Your task to perform on an android device: change the upload size in google photos Image 0: 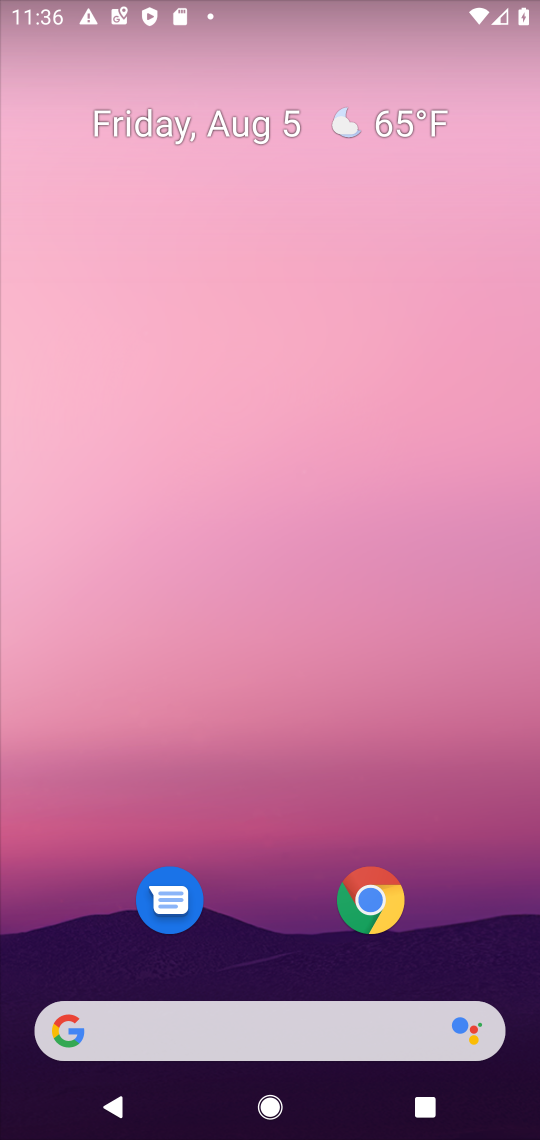
Step 0: drag from (244, 985) to (295, 169)
Your task to perform on an android device: change the upload size in google photos Image 1: 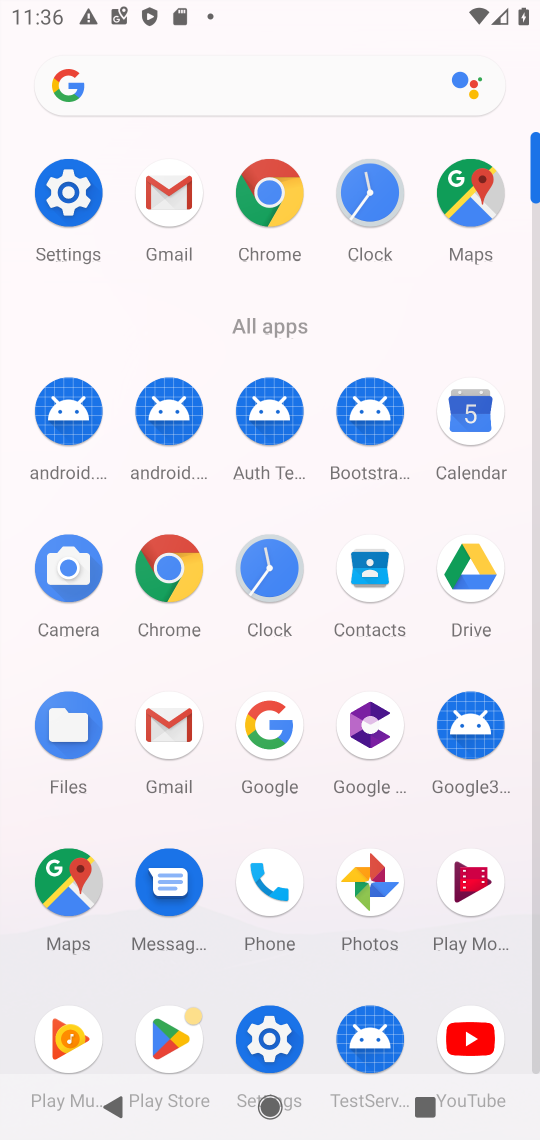
Step 1: click (371, 880)
Your task to perform on an android device: change the upload size in google photos Image 2: 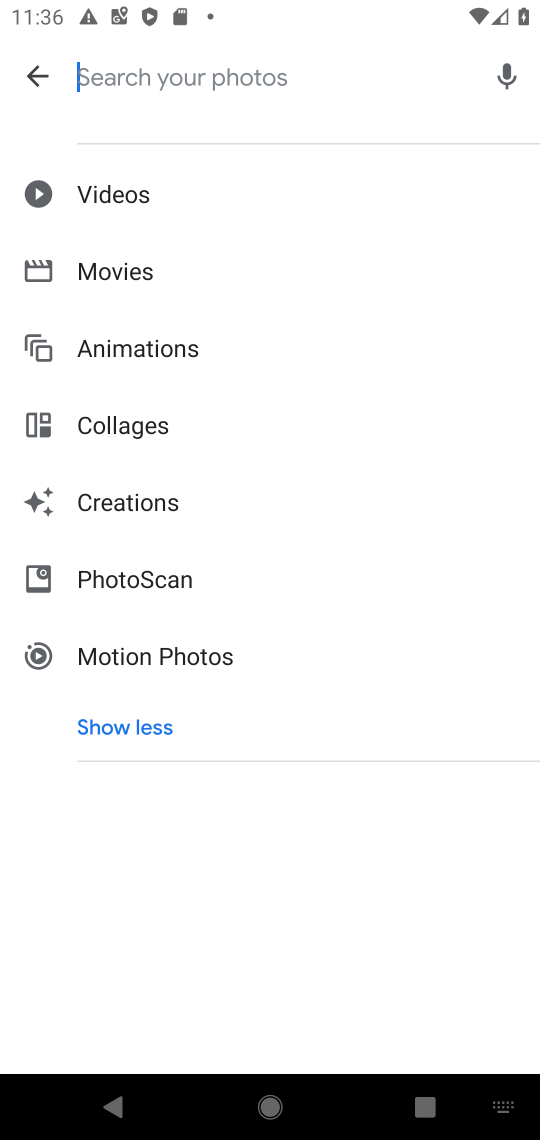
Step 2: click (34, 74)
Your task to perform on an android device: change the upload size in google photos Image 3: 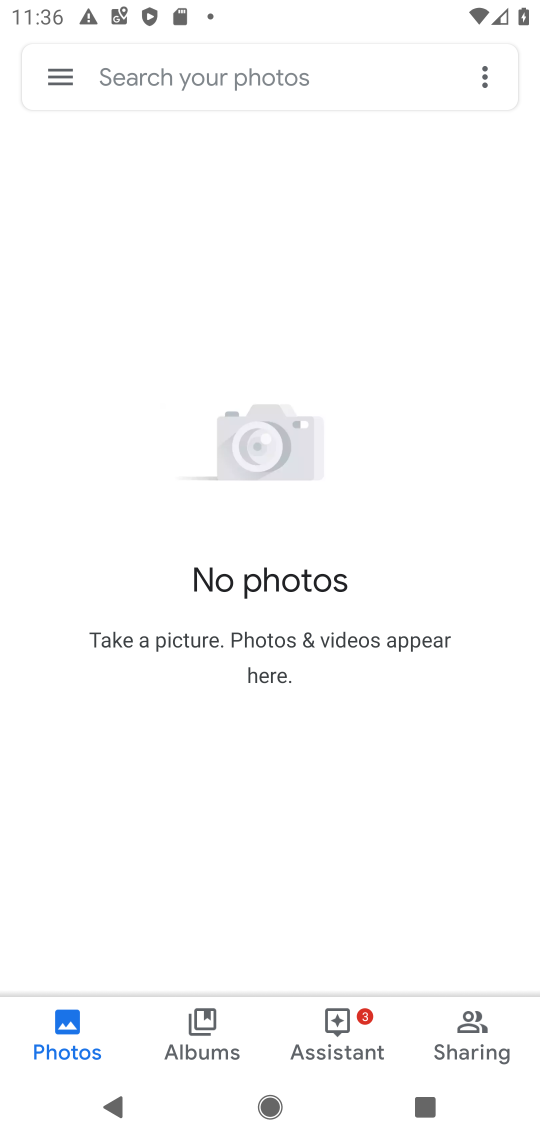
Step 3: click (57, 75)
Your task to perform on an android device: change the upload size in google photos Image 4: 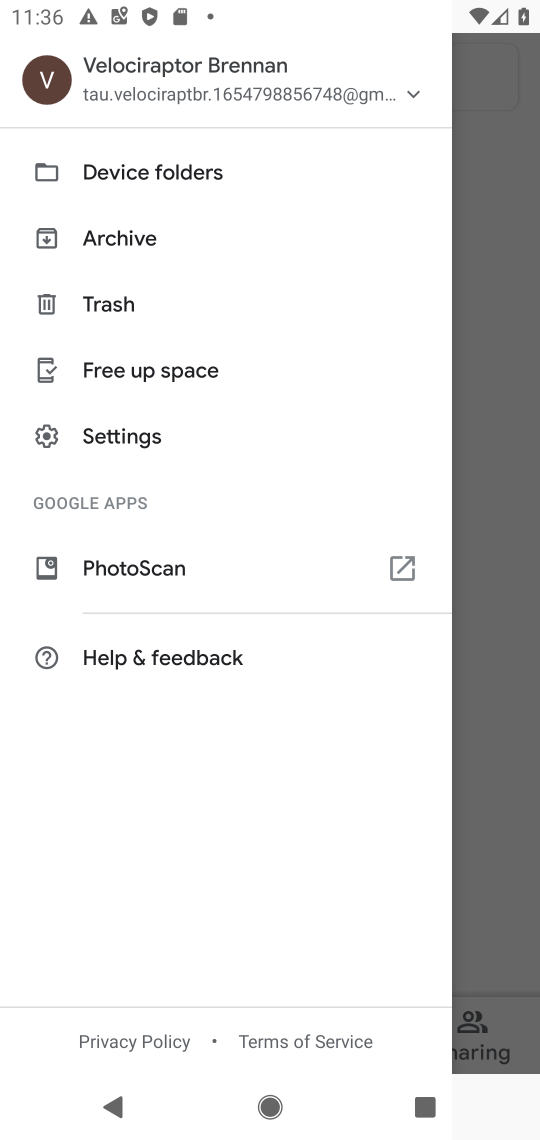
Step 4: click (115, 430)
Your task to perform on an android device: change the upload size in google photos Image 5: 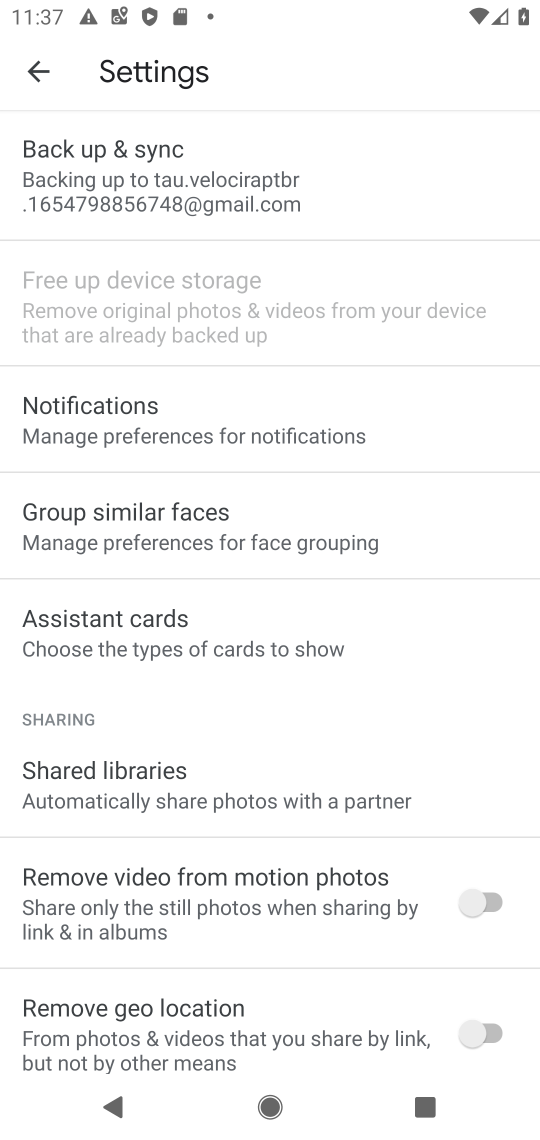
Step 5: click (135, 179)
Your task to perform on an android device: change the upload size in google photos Image 6: 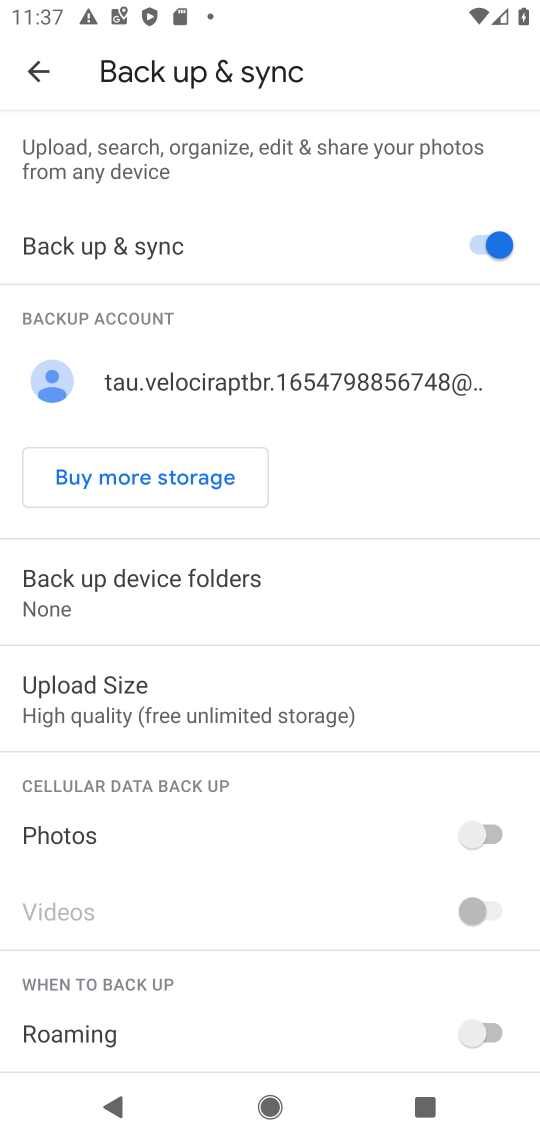
Step 6: click (154, 699)
Your task to perform on an android device: change the upload size in google photos Image 7: 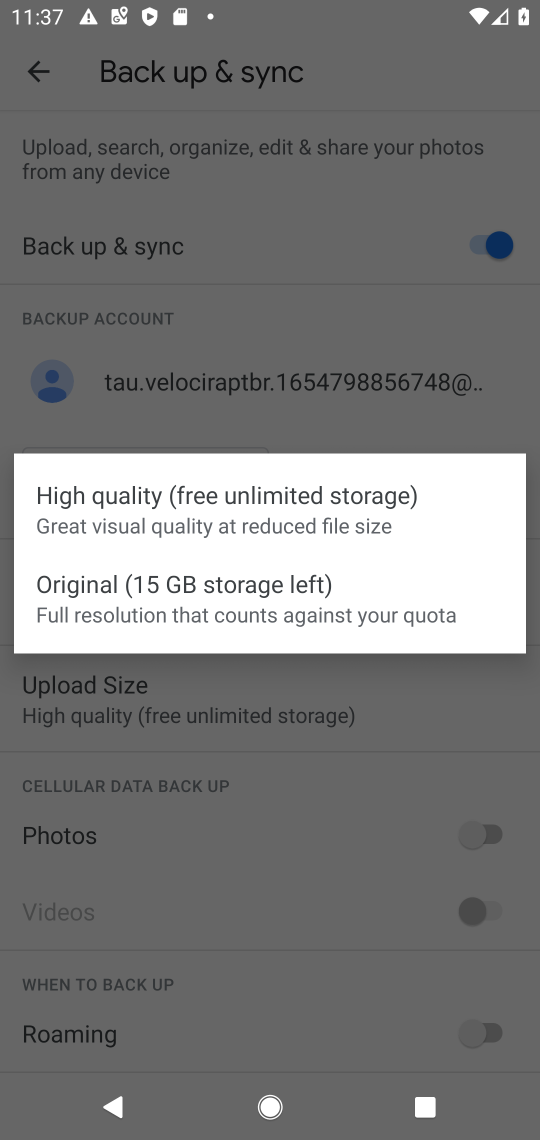
Step 7: click (114, 600)
Your task to perform on an android device: change the upload size in google photos Image 8: 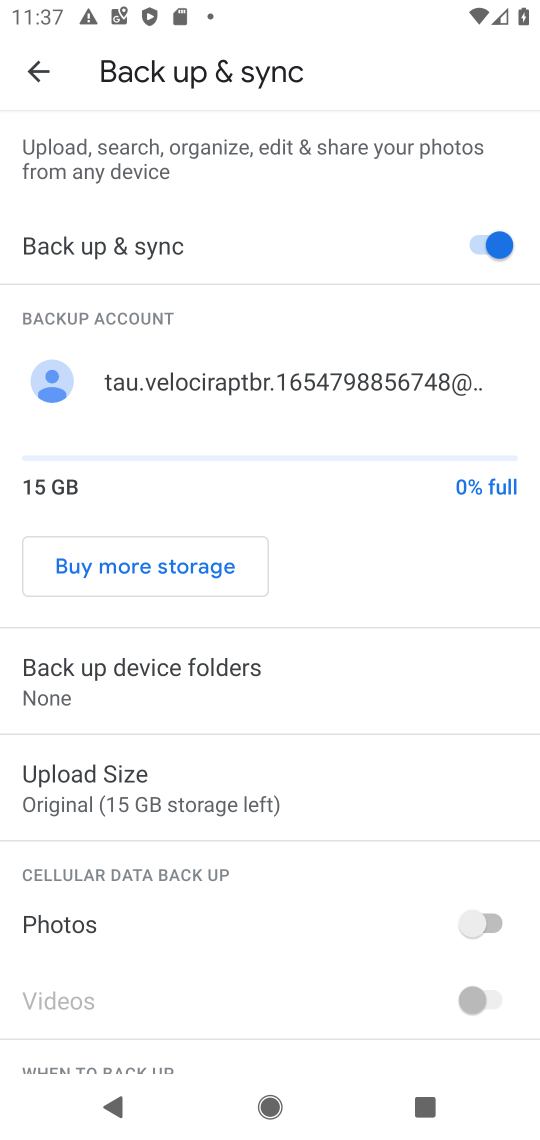
Step 8: task complete